Your task to perform on an android device: Open Wikipedia Image 0: 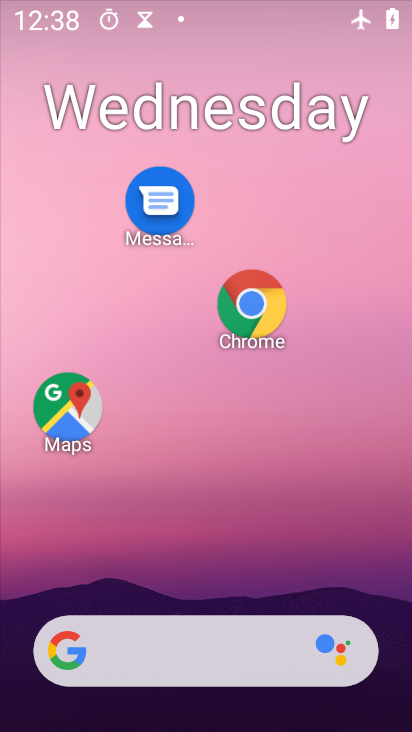
Step 0: drag from (270, 450) to (337, 163)
Your task to perform on an android device: Open Wikipedia Image 1: 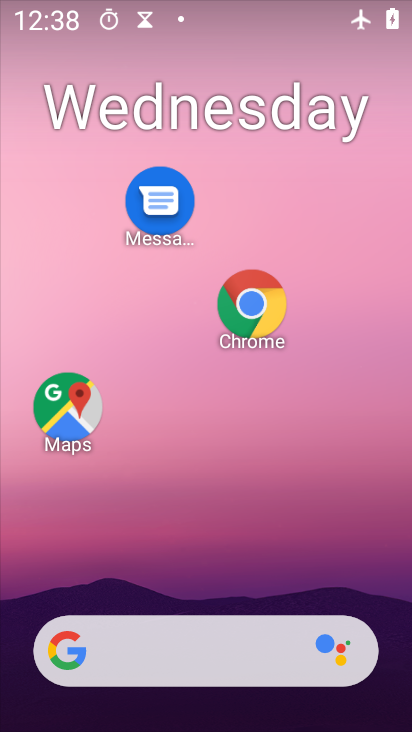
Step 1: click (256, 309)
Your task to perform on an android device: Open Wikipedia Image 2: 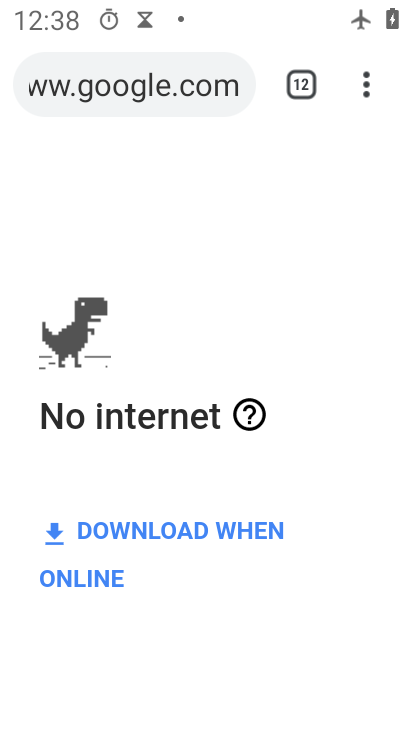
Step 2: click (357, 90)
Your task to perform on an android device: Open Wikipedia Image 3: 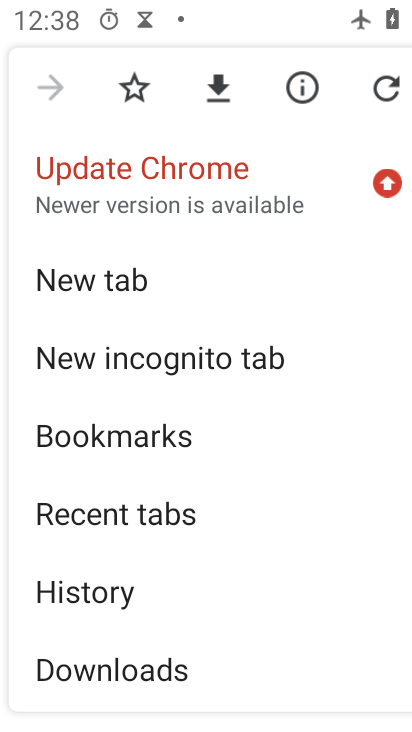
Step 3: click (143, 286)
Your task to perform on an android device: Open Wikipedia Image 4: 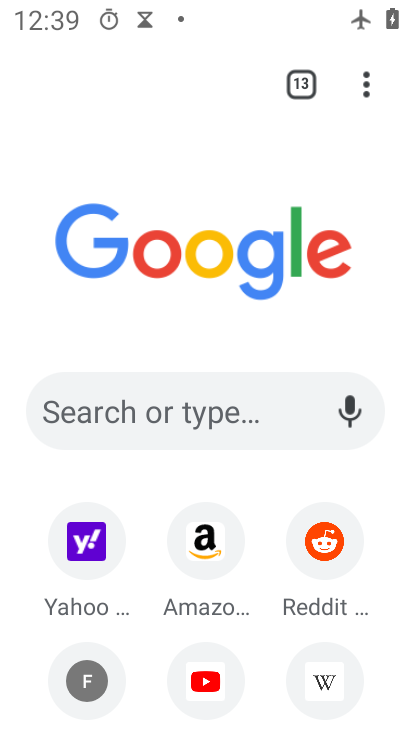
Step 4: drag from (345, 469) to (402, 154)
Your task to perform on an android device: Open Wikipedia Image 5: 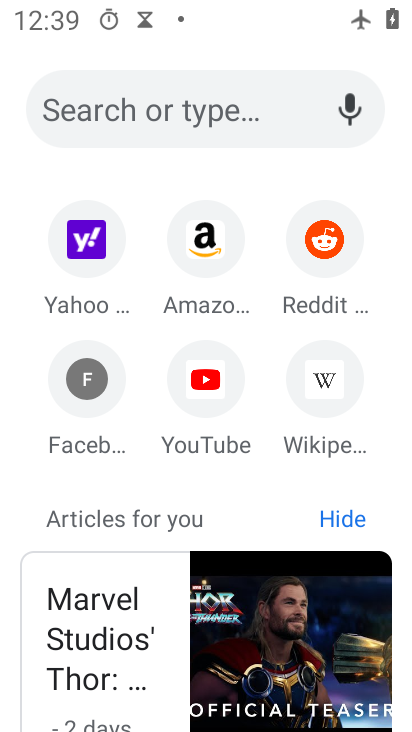
Step 5: click (330, 378)
Your task to perform on an android device: Open Wikipedia Image 6: 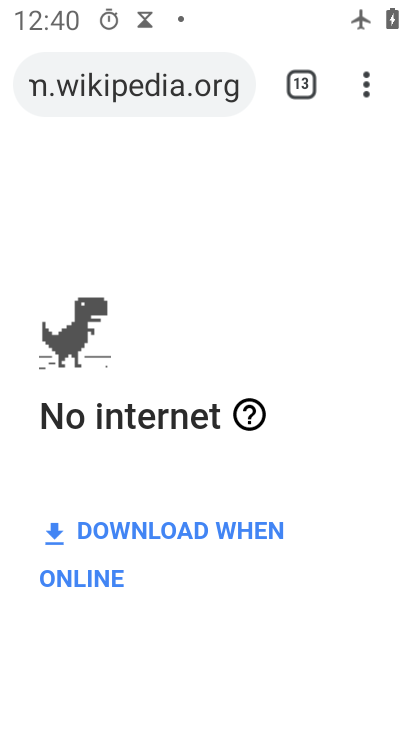
Step 6: task complete